Your task to perform on an android device: add a label to a message in the gmail app Image 0: 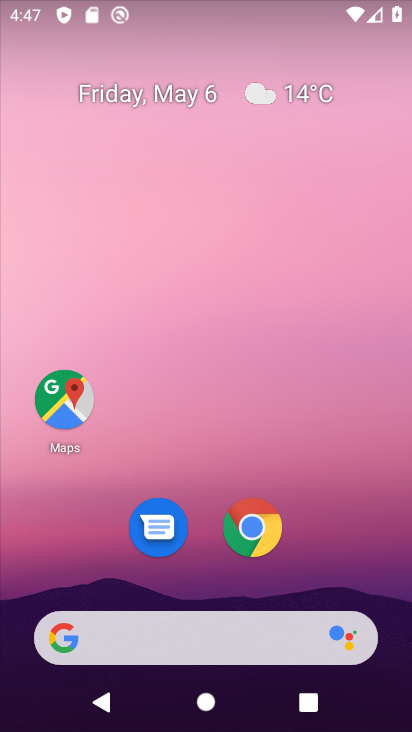
Step 0: click (382, 157)
Your task to perform on an android device: add a label to a message in the gmail app Image 1: 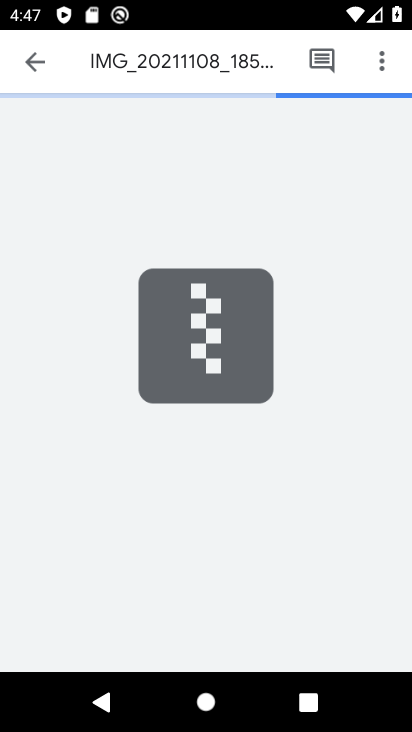
Step 1: press home button
Your task to perform on an android device: add a label to a message in the gmail app Image 2: 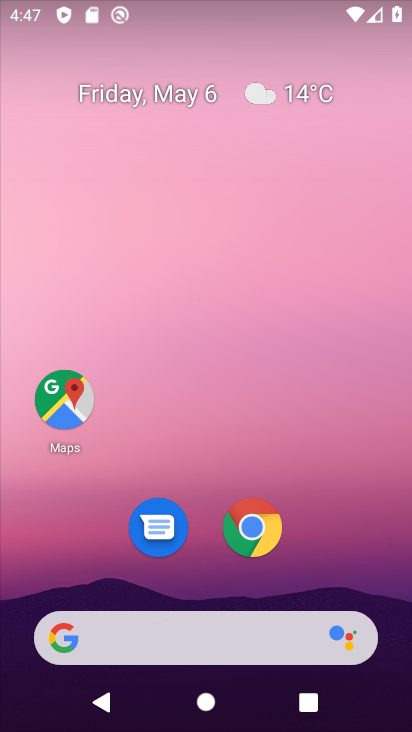
Step 2: drag from (343, 547) to (370, 39)
Your task to perform on an android device: add a label to a message in the gmail app Image 3: 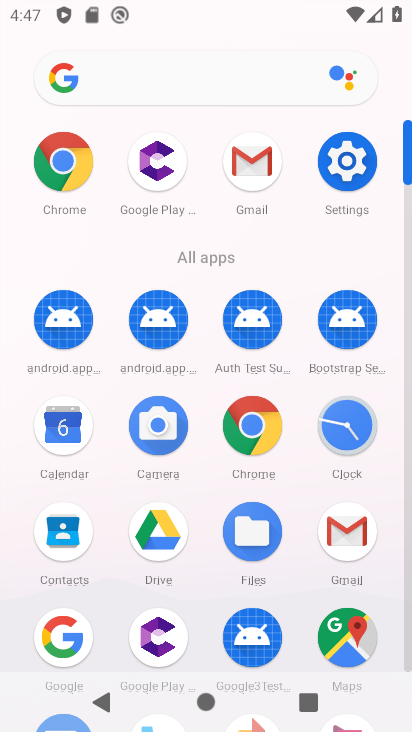
Step 3: click (241, 164)
Your task to perform on an android device: add a label to a message in the gmail app Image 4: 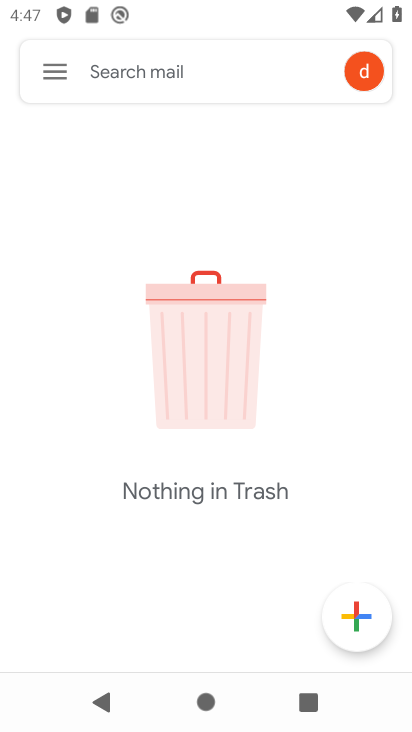
Step 4: click (50, 74)
Your task to perform on an android device: add a label to a message in the gmail app Image 5: 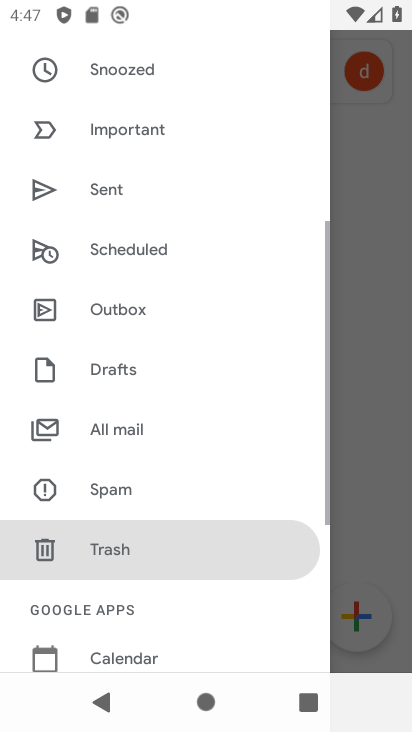
Step 5: drag from (124, 169) to (90, 636)
Your task to perform on an android device: add a label to a message in the gmail app Image 6: 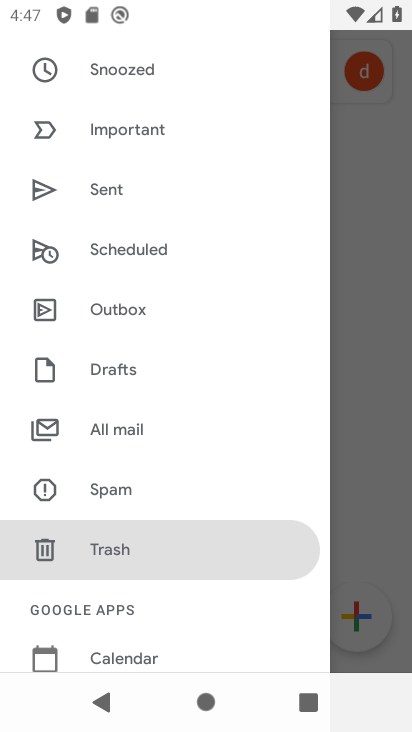
Step 6: drag from (206, 134) to (216, 587)
Your task to perform on an android device: add a label to a message in the gmail app Image 7: 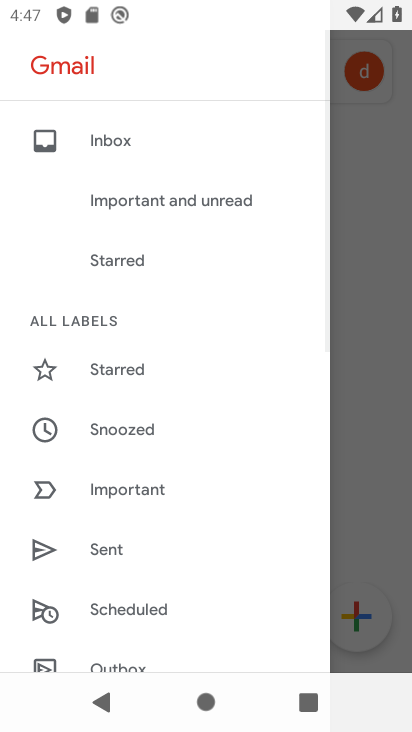
Step 7: drag from (228, 158) to (194, 518)
Your task to perform on an android device: add a label to a message in the gmail app Image 8: 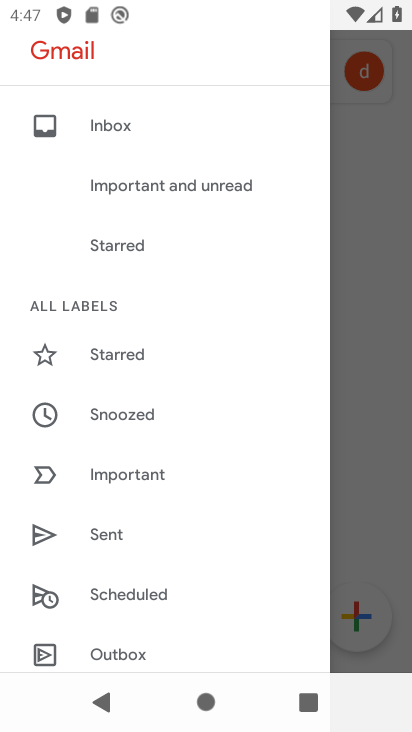
Step 8: click (118, 150)
Your task to perform on an android device: add a label to a message in the gmail app Image 9: 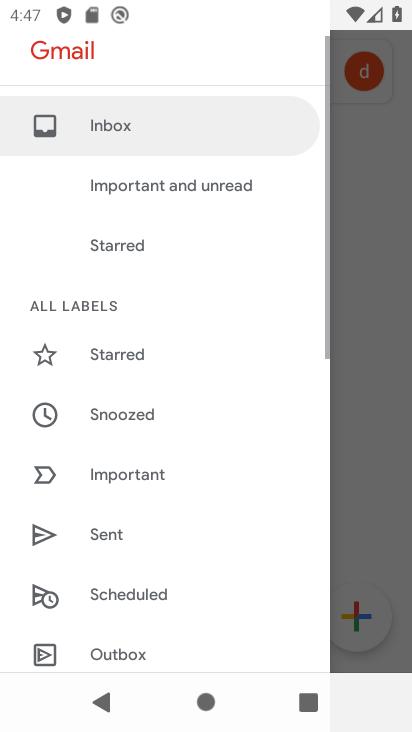
Step 9: click (112, 127)
Your task to perform on an android device: add a label to a message in the gmail app Image 10: 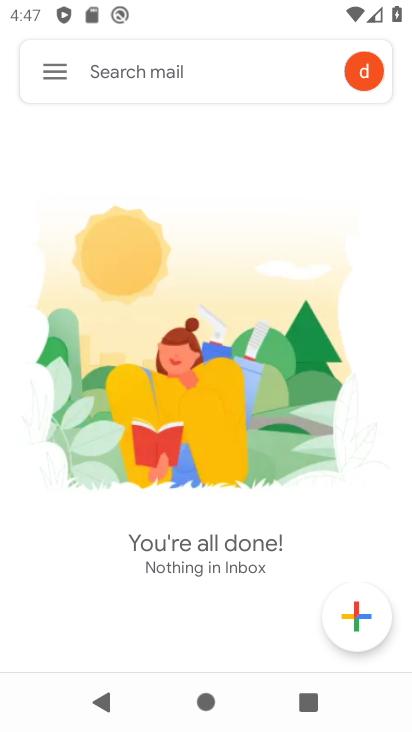
Step 10: task complete